Your task to perform on an android device: Is it going to rain this weekend? Image 0: 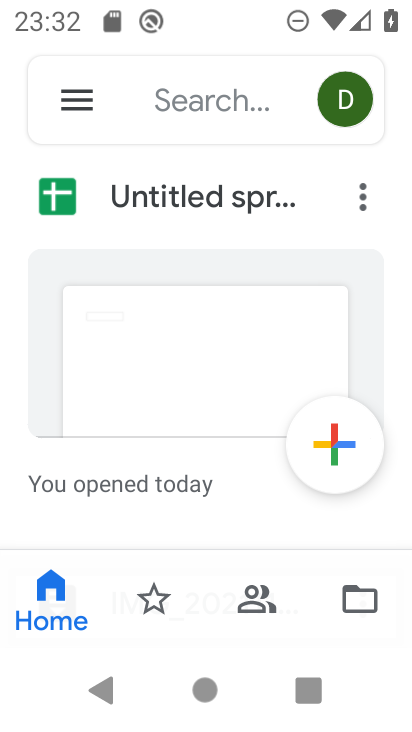
Step 0: press home button
Your task to perform on an android device: Is it going to rain this weekend? Image 1: 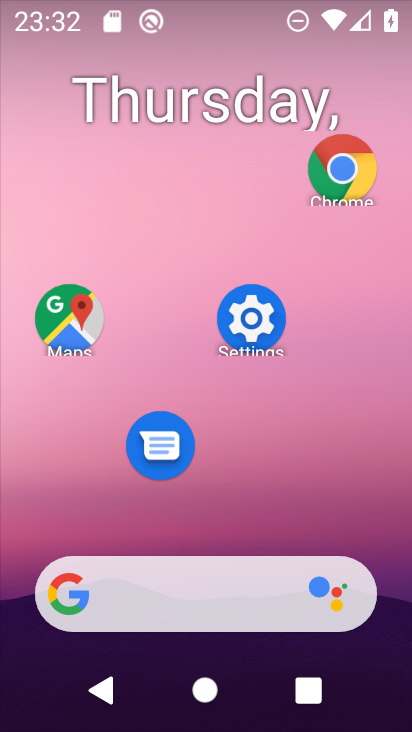
Step 1: drag from (200, 528) to (225, 5)
Your task to perform on an android device: Is it going to rain this weekend? Image 2: 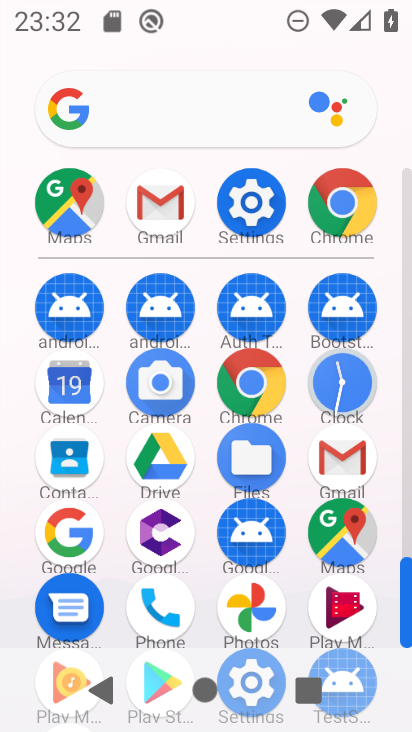
Step 2: click (152, 106)
Your task to perform on an android device: Is it going to rain this weekend? Image 3: 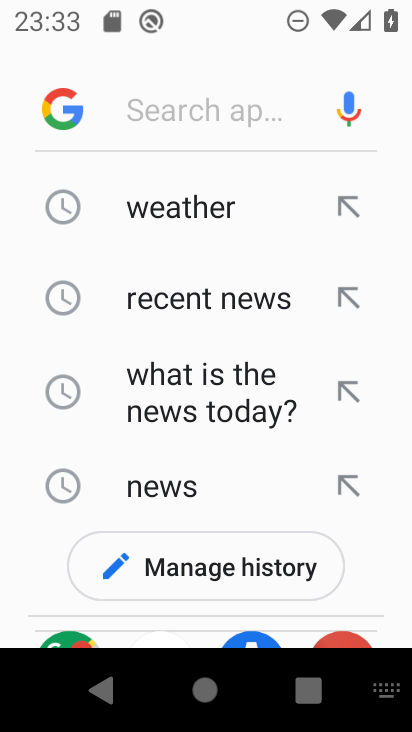
Step 3: type "rain this weekend?"
Your task to perform on an android device: Is it going to rain this weekend? Image 4: 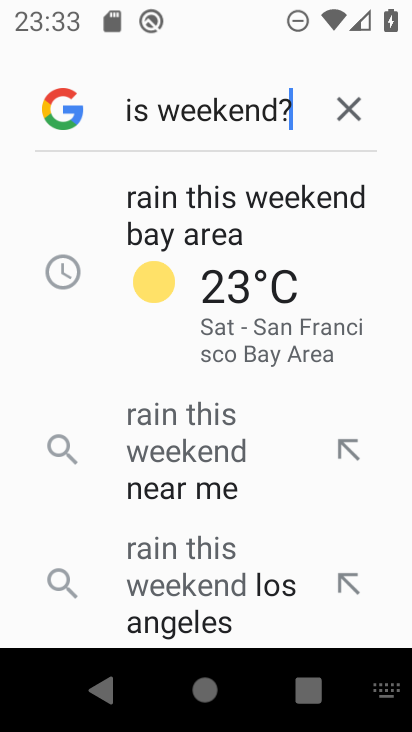
Step 4: click (180, 209)
Your task to perform on an android device: Is it going to rain this weekend? Image 5: 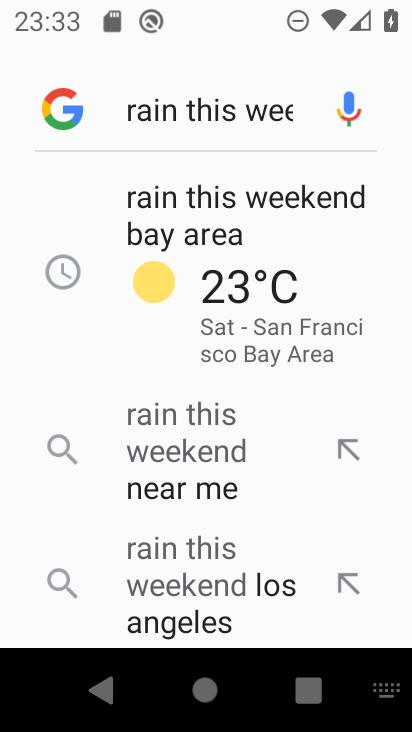
Step 5: task complete